Your task to perform on an android device: turn off wifi Image 0: 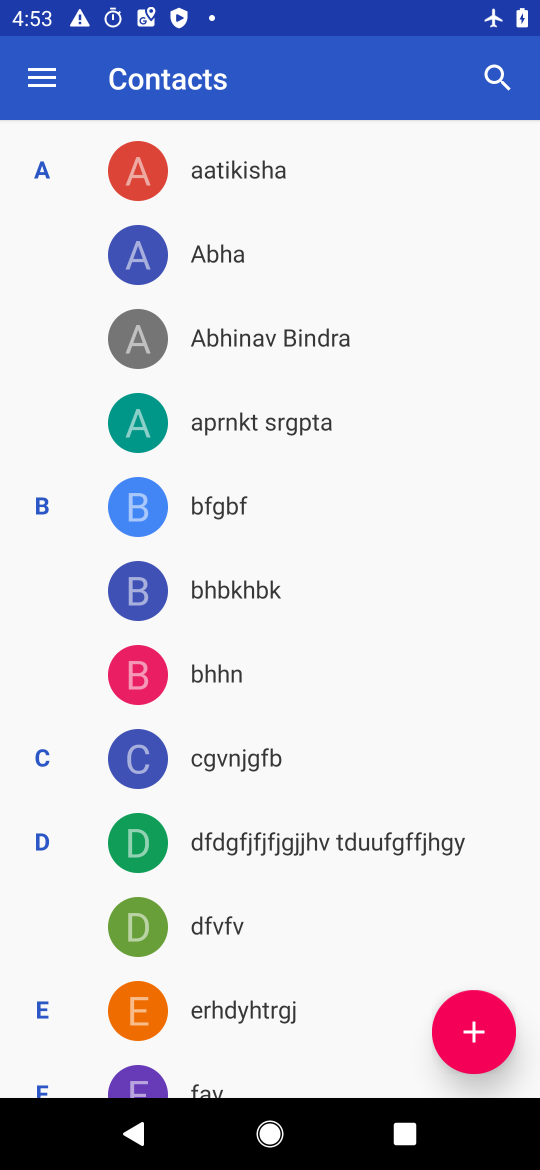
Step 0: drag from (268, 8) to (300, 1050)
Your task to perform on an android device: turn off wifi Image 1: 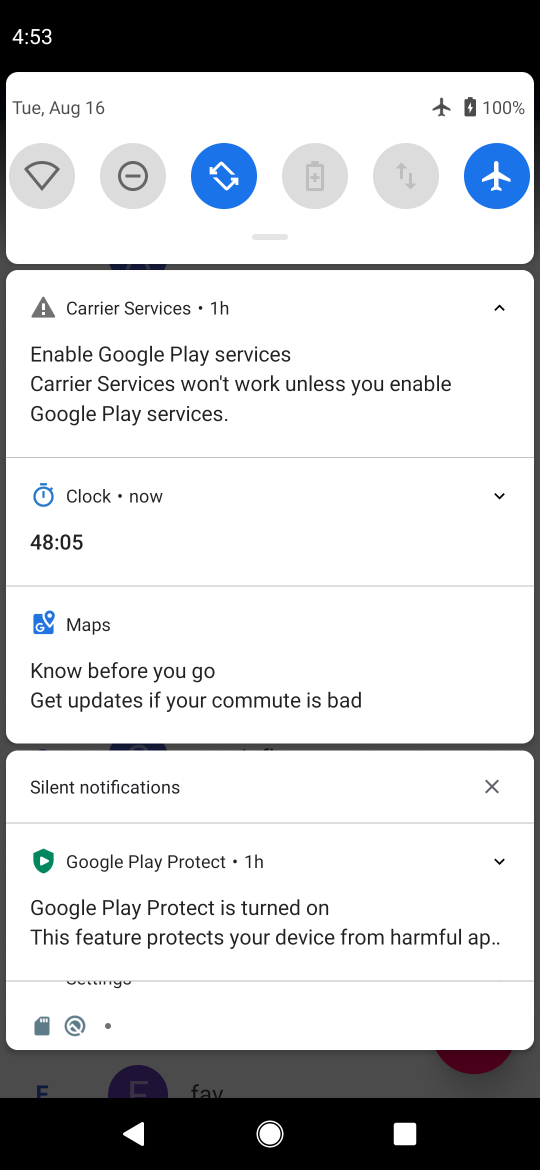
Step 1: click (495, 160)
Your task to perform on an android device: turn off wifi Image 2: 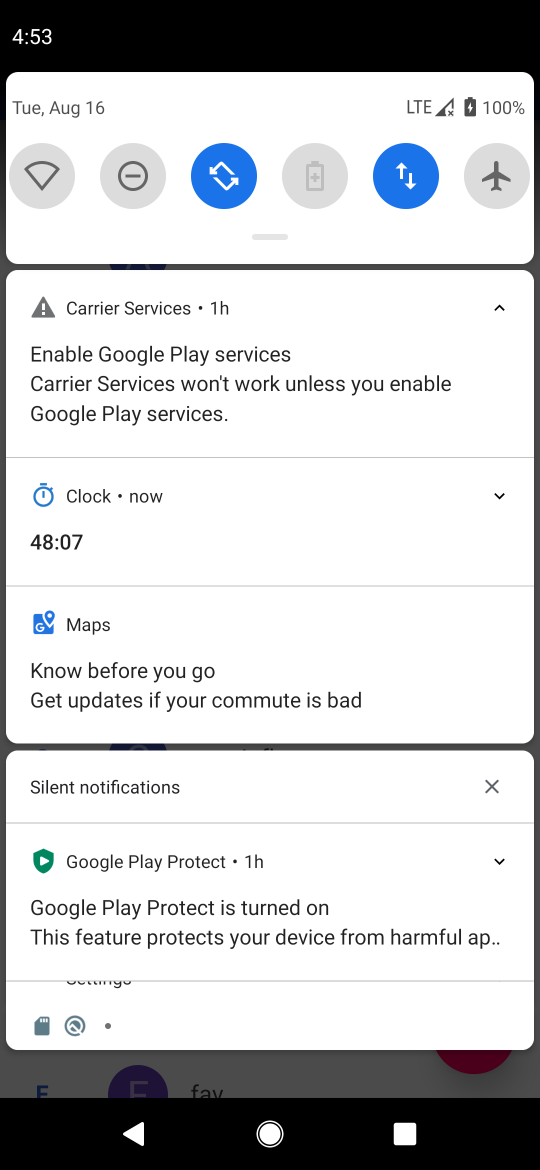
Step 2: task complete